Your task to perform on an android device: toggle location history Image 0: 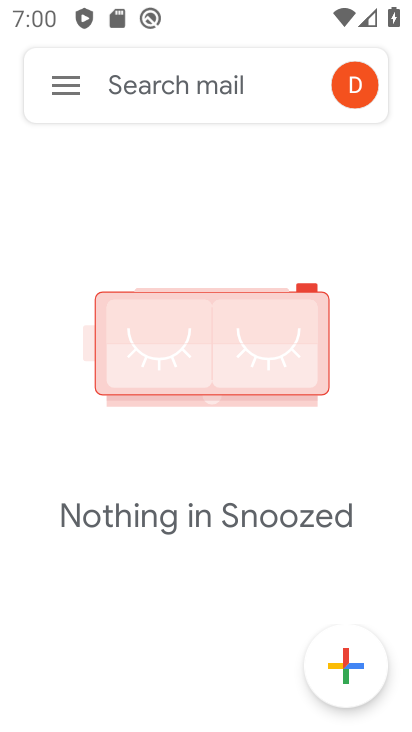
Step 0: drag from (280, 694) to (294, 367)
Your task to perform on an android device: toggle location history Image 1: 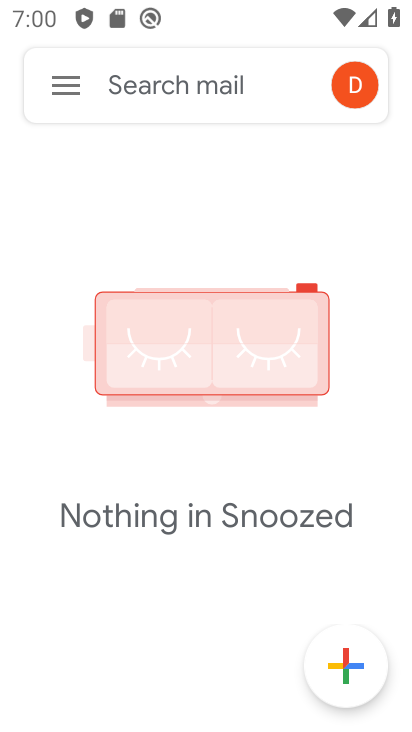
Step 1: press home button
Your task to perform on an android device: toggle location history Image 2: 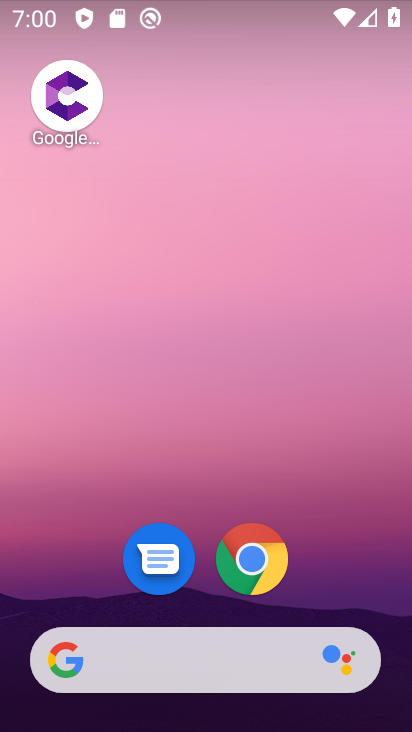
Step 2: drag from (222, 690) to (195, 131)
Your task to perform on an android device: toggle location history Image 3: 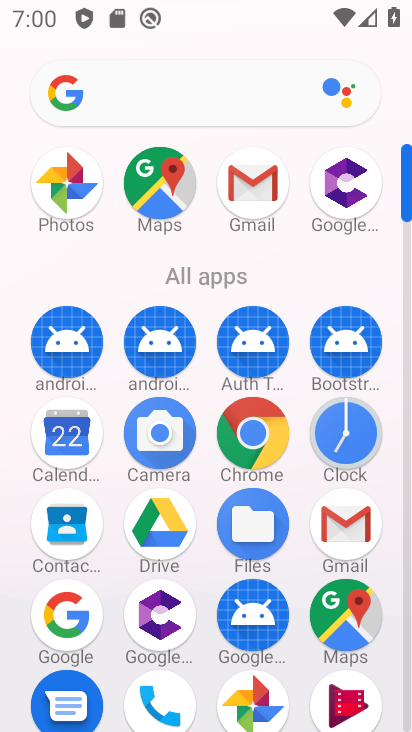
Step 3: drag from (117, 480) to (122, 214)
Your task to perform on an android device: toggle location history Image 4: 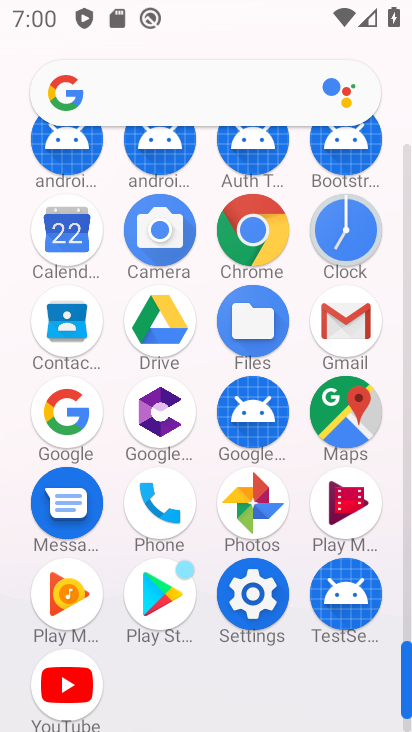
Step 4: click (255, 589)
Your task to perform on an android device: toggle location history Image 5: 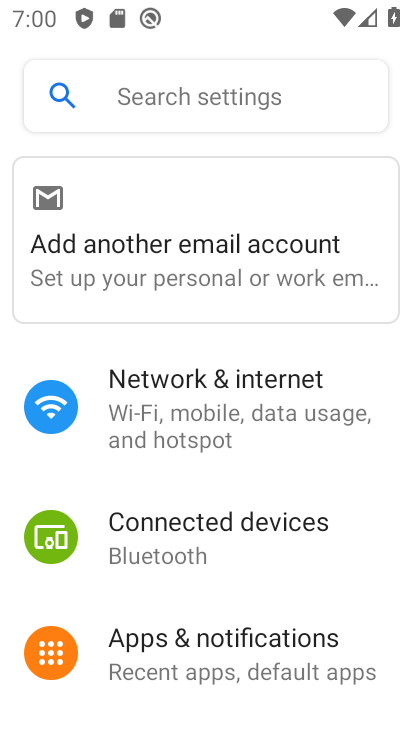
Step 5: click (172, 94)
Your task to perform on an android device: toggle location history Image 6: 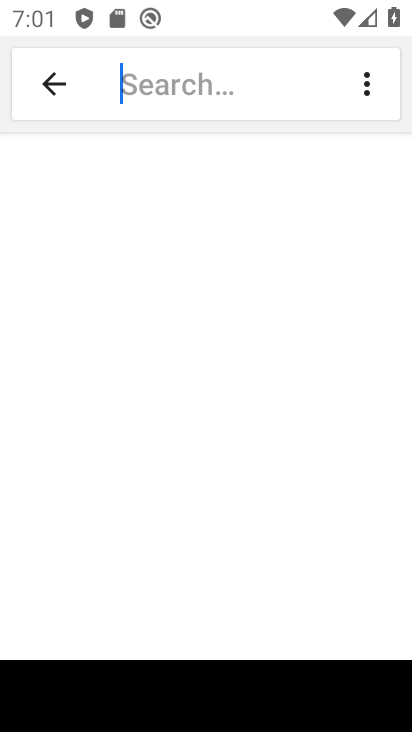
Step 6: drag from (386, 705) to (339, 380)
Your task to perform on an android device: toggle location history Image 7: 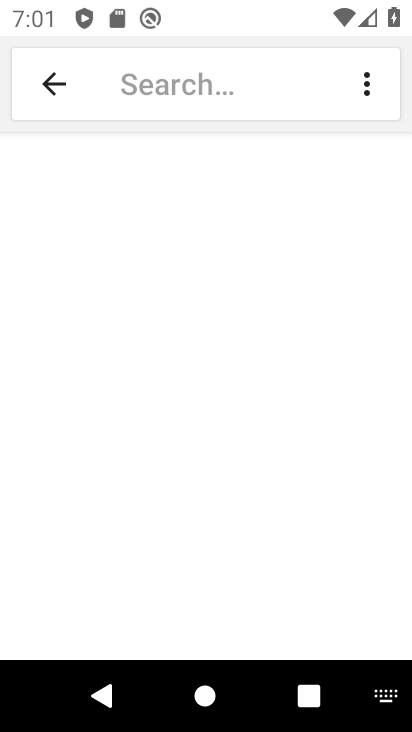
Step 7: click (386, 686)
Your task to perform on an android device: toggle location history Image 8: 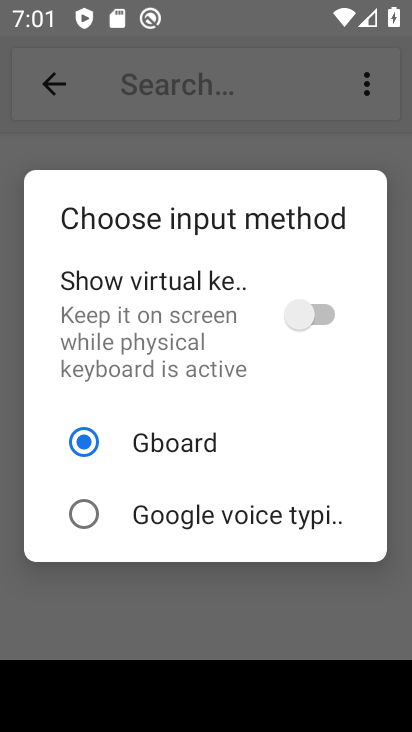
Step 8: click (292, 306)
Your task to perform on an android device: toggle location history Image 9: 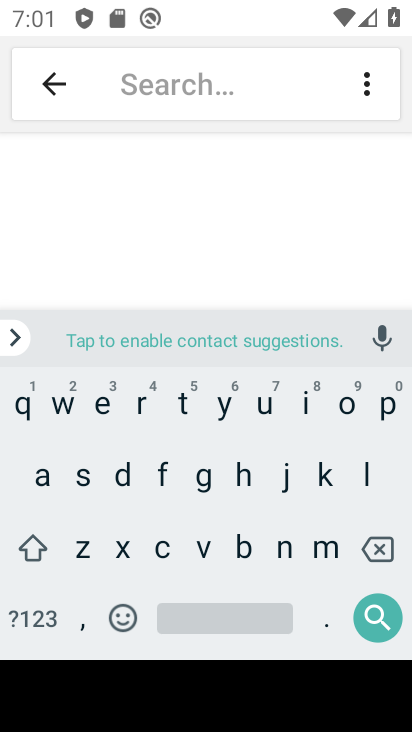
Step 9: click (359, 462)
Your task to perform on an android device: toggle location history Image 10: 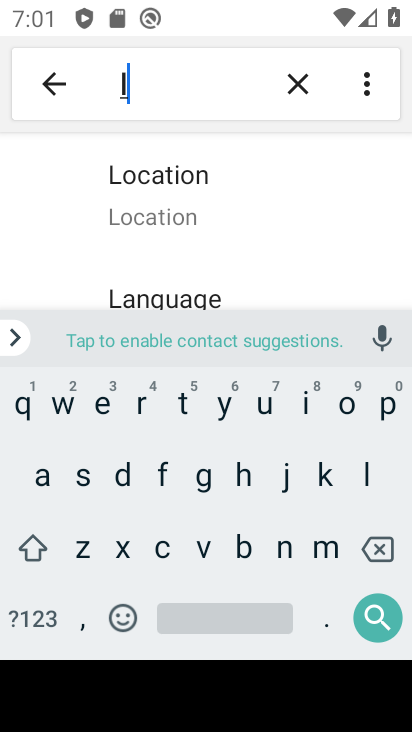
Step 10: click (141, 203)
Your task to perform on an android device: toggle location history Image 11: 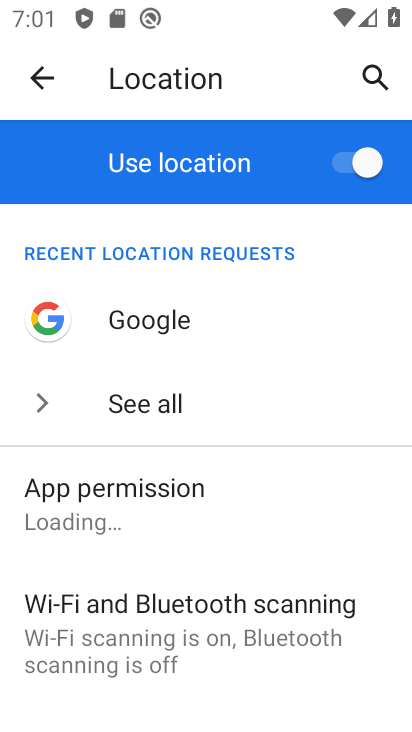
Step 11: drag from (240, 483) to (163, 194)
Your task to perform on an android device: toggle location history Image 12: 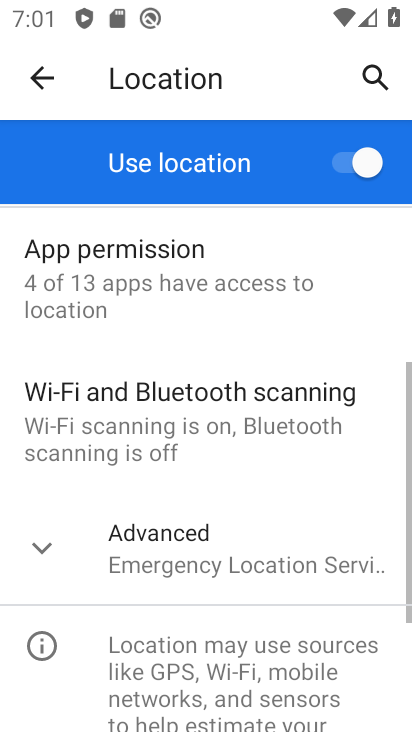
Step 12: click (61, 508)
Your task to perform on an android device: toggle location history Image 13: 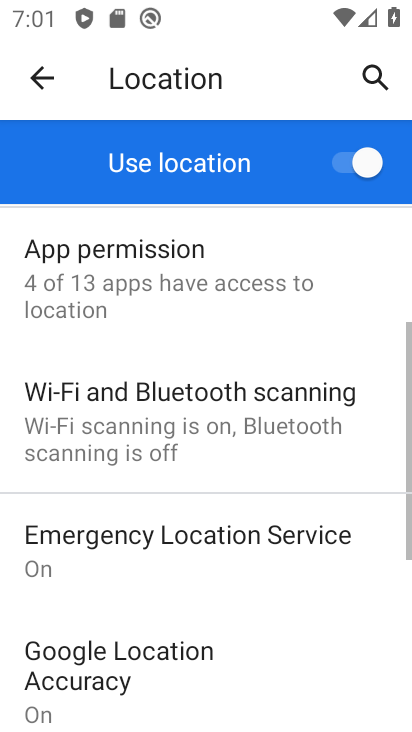
Step 13: drag from (285, 582) to (251, 304)
Your task to perform on an android device: toggle location history Image 14: 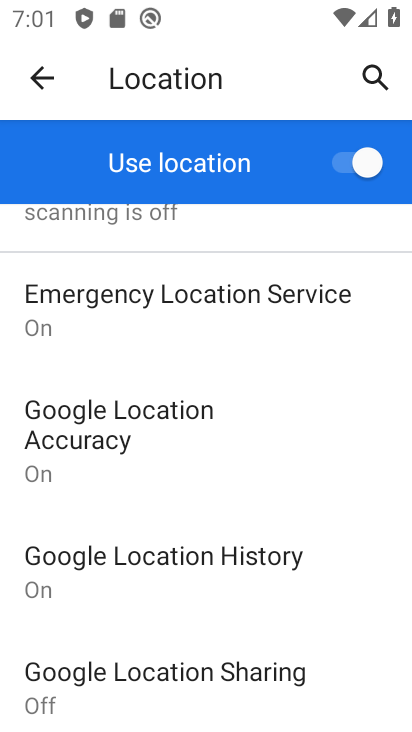
Step 14: click (166, 539)
Your task to perform on an android device: toggle location history Image 15: 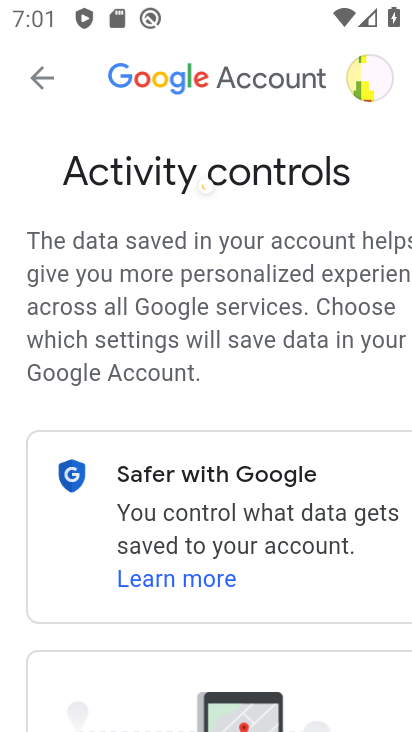
Step 15: task complete